Your task to perform on an android device: Open internet settings Image 0: 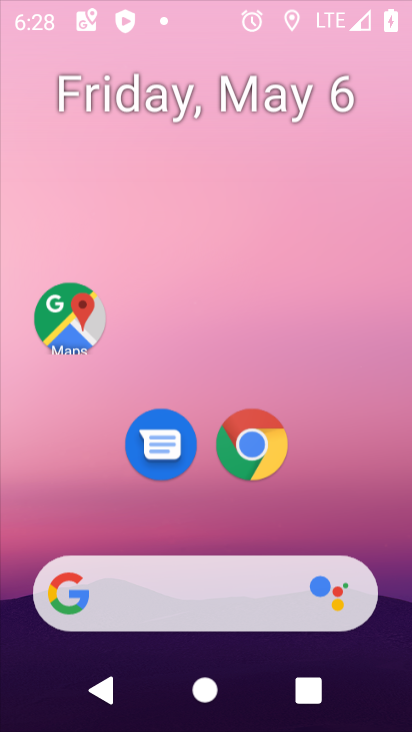
Step 0: click (309, 205)
Your task to perform on an android device: Open internet settings Image 1: 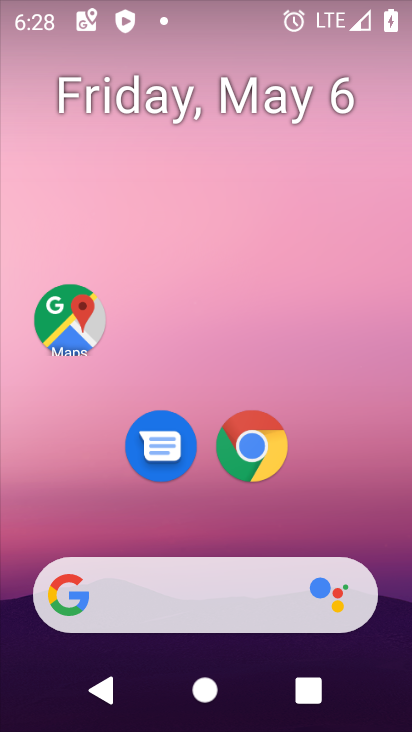
Step 1: drag from (287, 507) to (242, 165)
Your task to perform on an android device: Open internet settings Image 2: 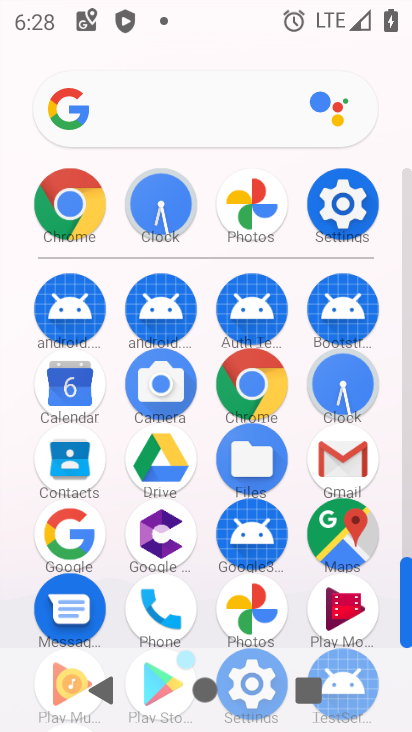
Step 2: click (175, 217)
Your task to perform on an android device: Open internet settings Image 3: 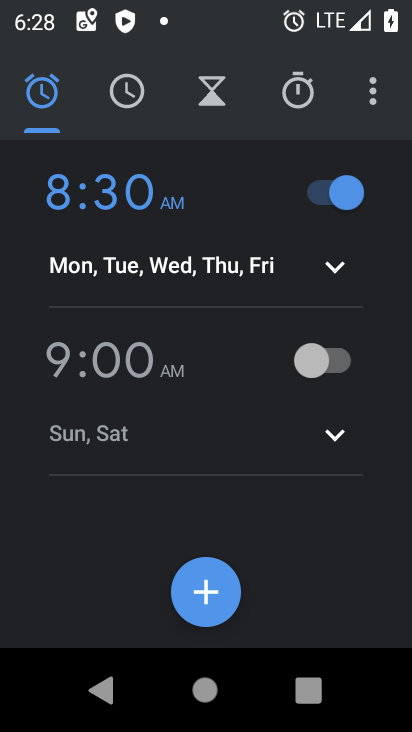
Step 3: press home button
Your task to perform on an android device: Open internet settings Image 4: 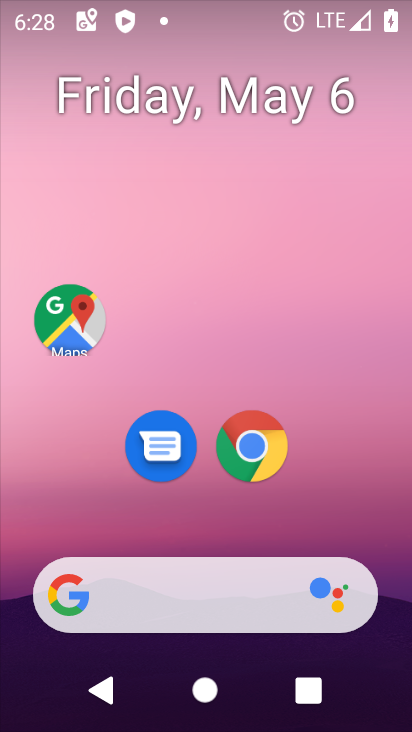
Step 4: drag from (337, 555) to (330, 207)
Your task to perform on an android device: Open internet settings Image 5: 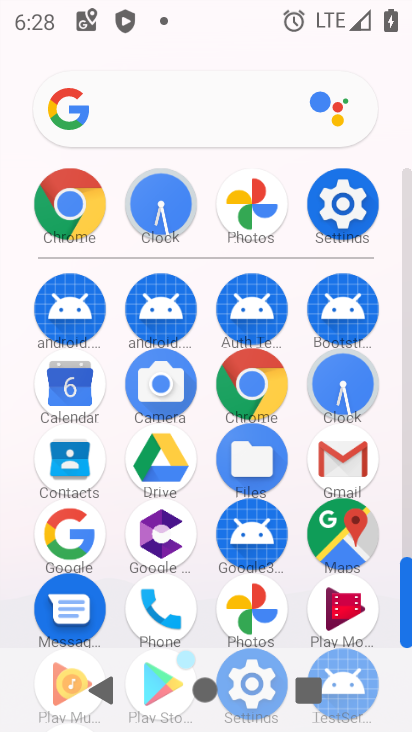
Step 5: click (356, 197)
Your task to perform on an android device: Open internet settings Image 6: 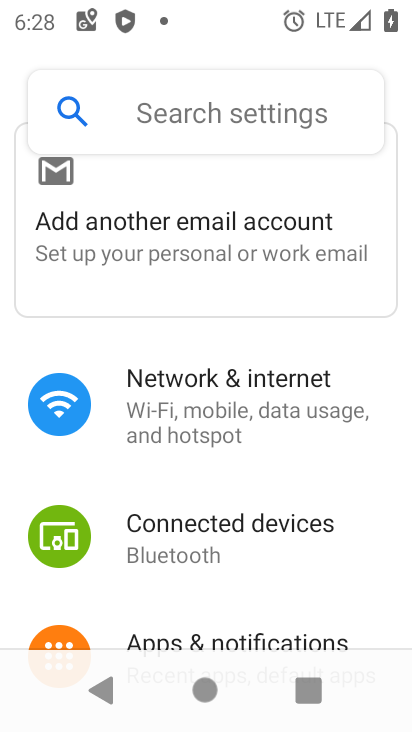
Step 6: click (218, 409)
Your task to perform on an android device: Open internet settings Image 7: 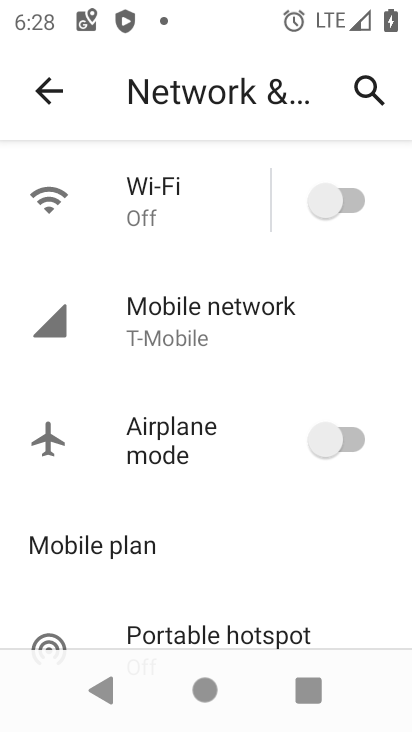
Step 7: task complete